Your task to perform on an android device: manage bookmarks in the chrome app Image 0: 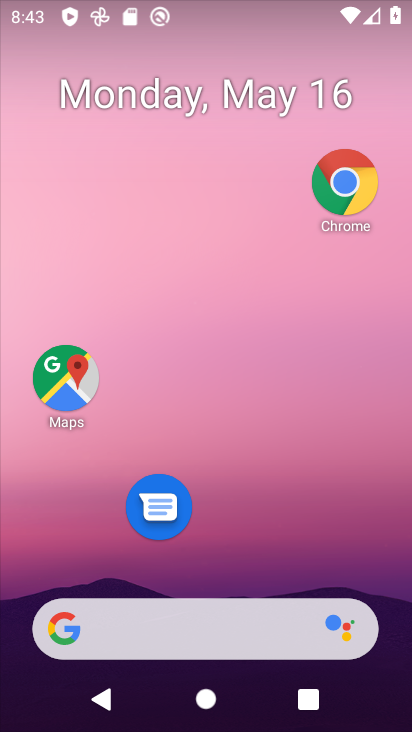
Step 0: click (334, 180)
Your task to perform on an android device: manage bookmarks in the chrome app Image 1: 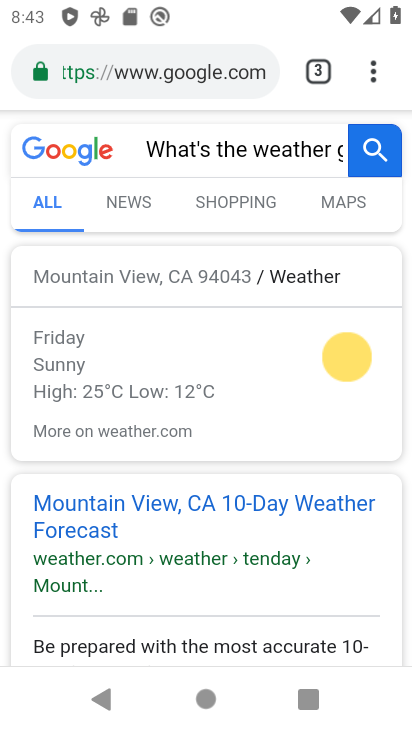
Step 1: task complete